Your task to perform on an android device: change notification settings in the gmail app Image 0: 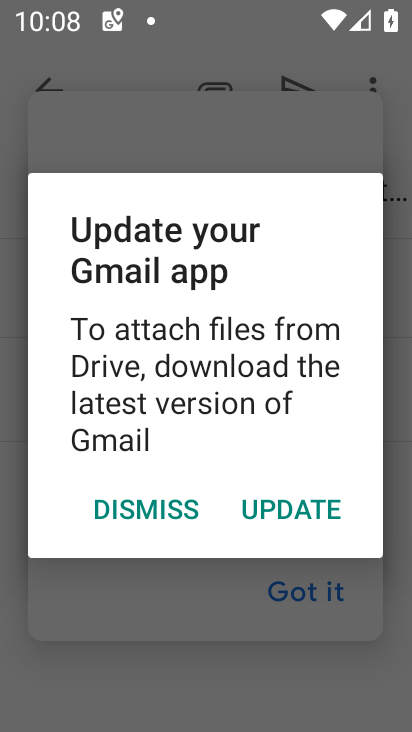
Step 0: press home button
Your task to perform on an android device: change notification settings in the gmail app Image 1: 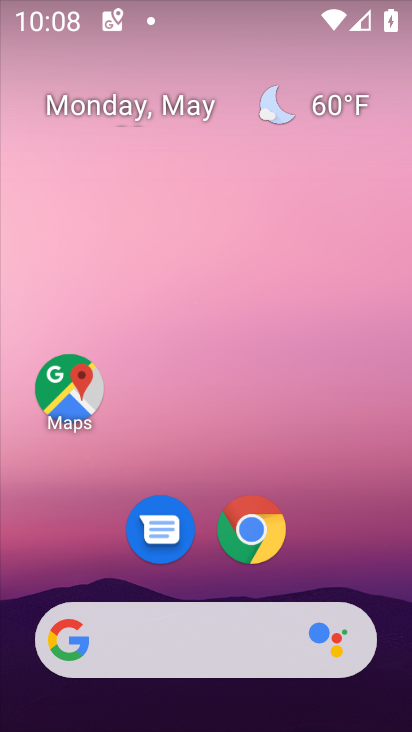
Step 1: drag from (281, 579) to (245, 119)
Your task to perform on an android device: change notification settings in the gmail app Image 2: 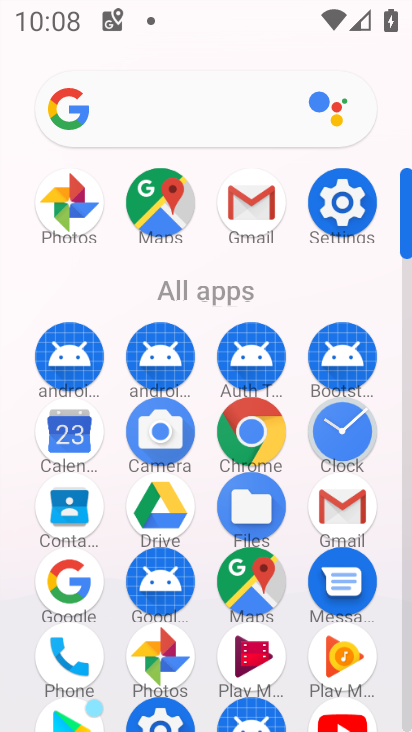
Step 2: click (249, 202)
Your task to perform on an android device: change notification settings in the gmail app Image 3: 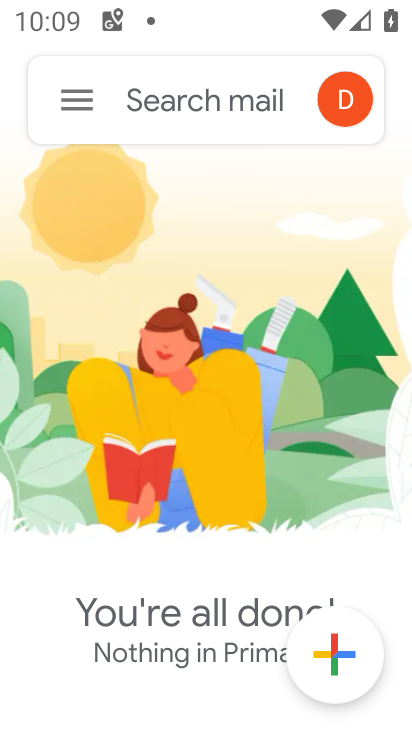
Step 3: click (81, 98)
Your task to perform on an android device: change notification settings in the gmail app Image 4: 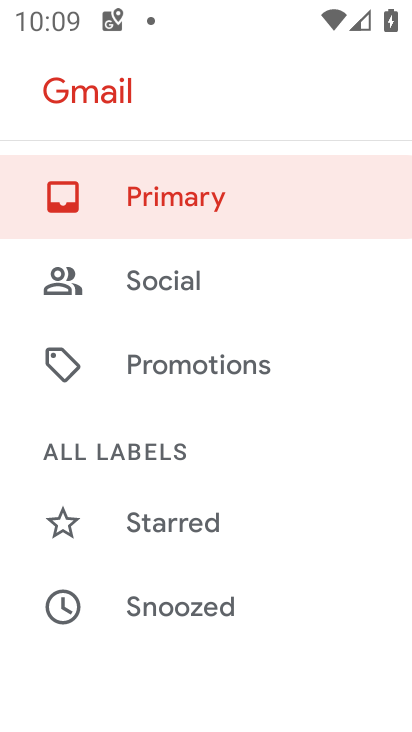
Step 4: drag from (202, 578) to (197, 181)
Your task to perform on an android device: change notification settings in the gmail app Image 5: 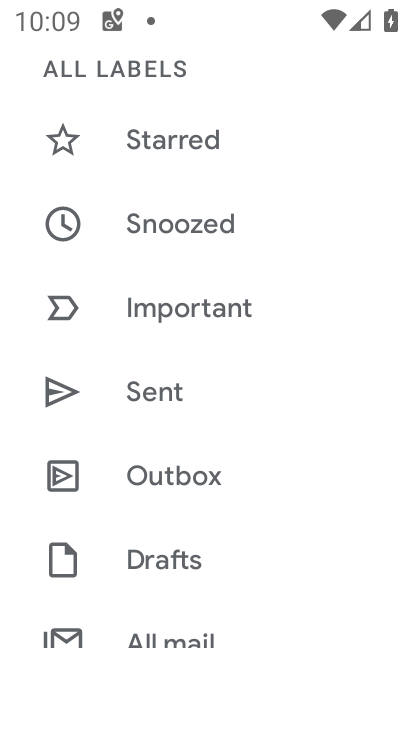
Step 5: drag from (229, 552) to (217, 215)
Your task to perform on an android device: change notification settings in the gmail app Image 6: 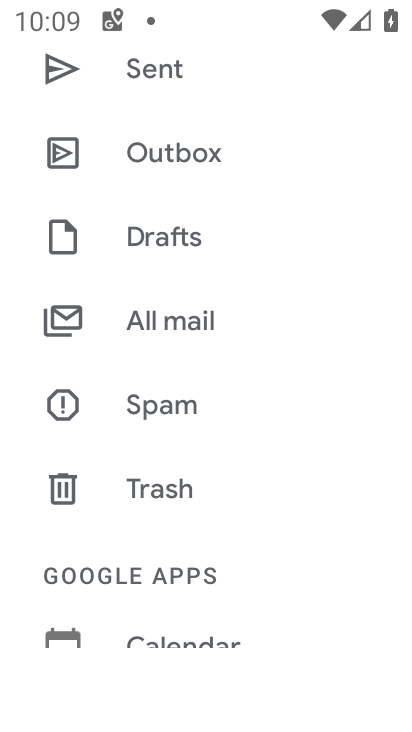
Step 6: drag from (222, 552) to (216, 234)
Your task to perform on an android device: change notification settings in the gmail app Image 7: 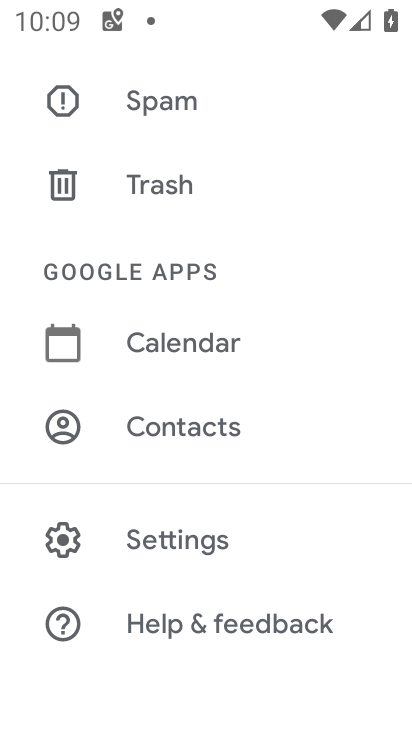
Step 7: click (201, 553)
Your task to perform on an android device: change notification settings in the gmail app Image 8: 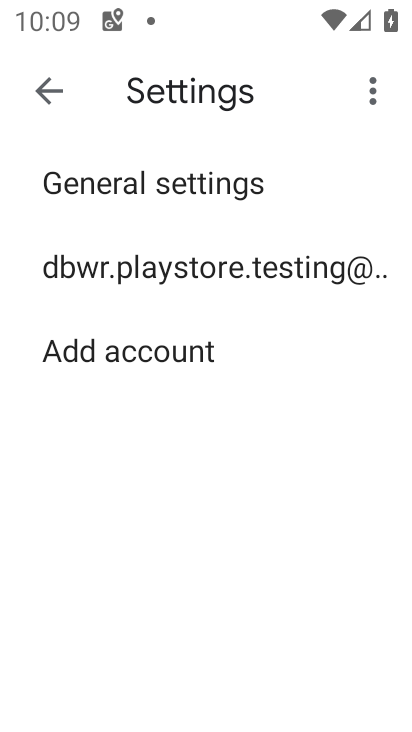
Step 8: click (146, 285)
Your task to perform on an android device: change notification settings in the gmail app Image 9: 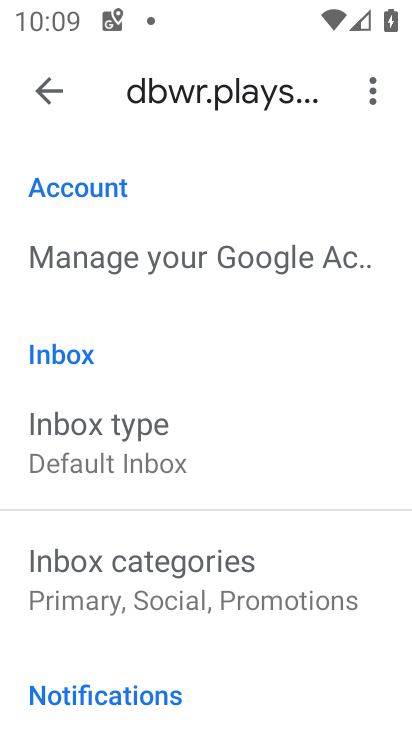
Step 9: drag from (130, 686) to (139, 431)
Your task to perform on an android device: change notification settings in the gmail app Image 10: 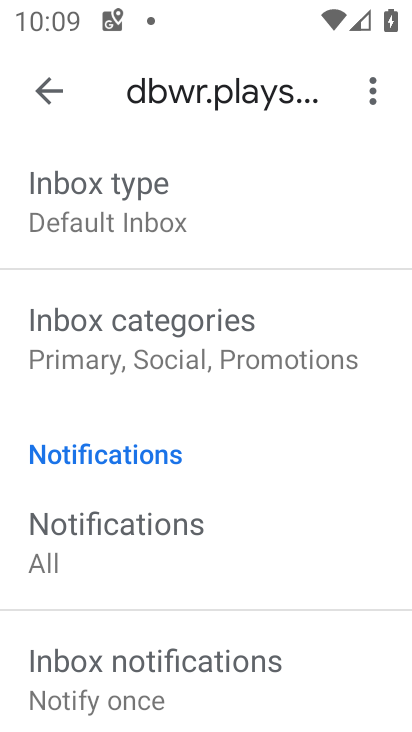
Step 10: click (109, 526)
Your task to perform on an android device: change notification settings in the gmail app Image 11: 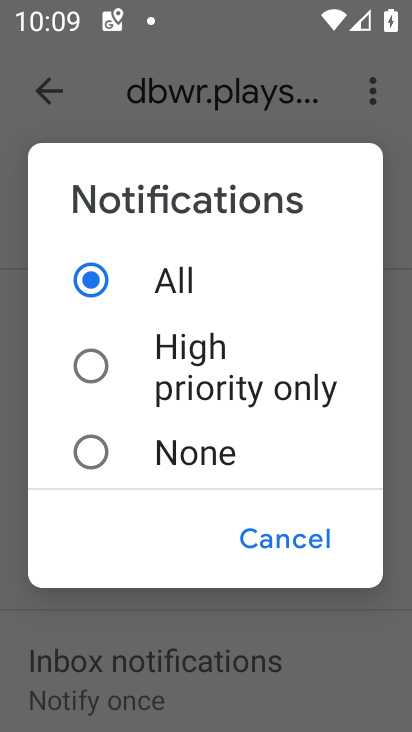
Step 11: click (92, 460)
Your task to perform on an android device: change notification settings in the gmail app Image 12: 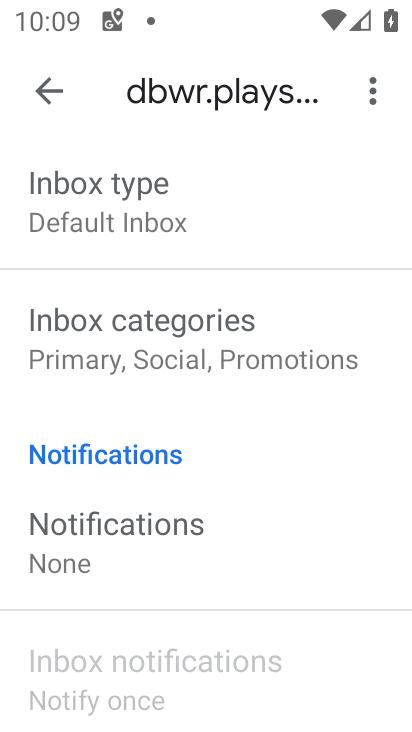
Step 12: task complete